Your task to perform on an android device: Open Wikipedia Image 0: 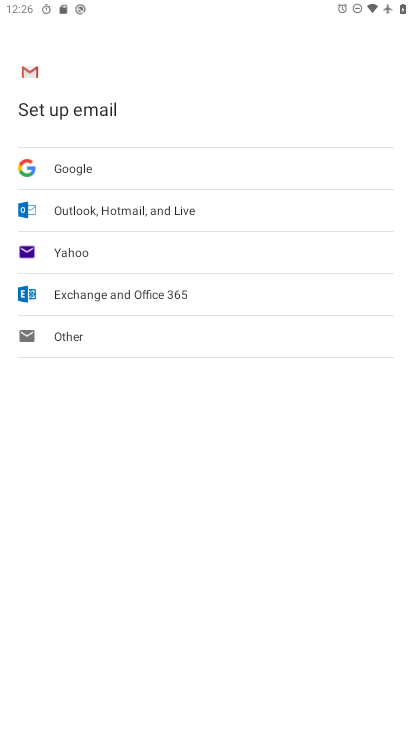
Step 0: press home button
Your task to perform on an android device: Open Wikipedia Image 1: 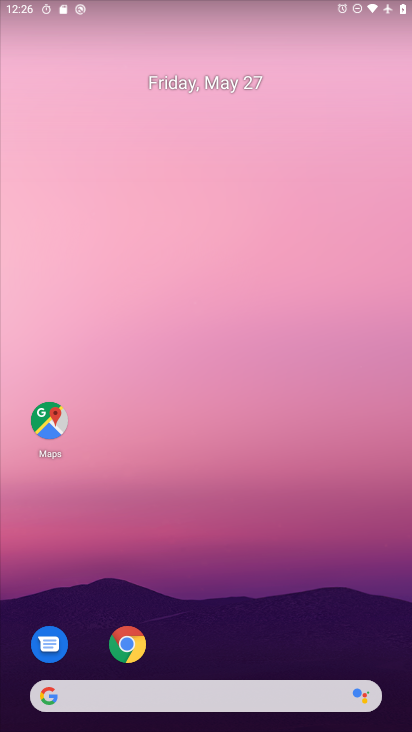
Step 1: drag from (212, 637) to (215, 177)
Your task to perform on an android device: Open Wikipedia Image 2: 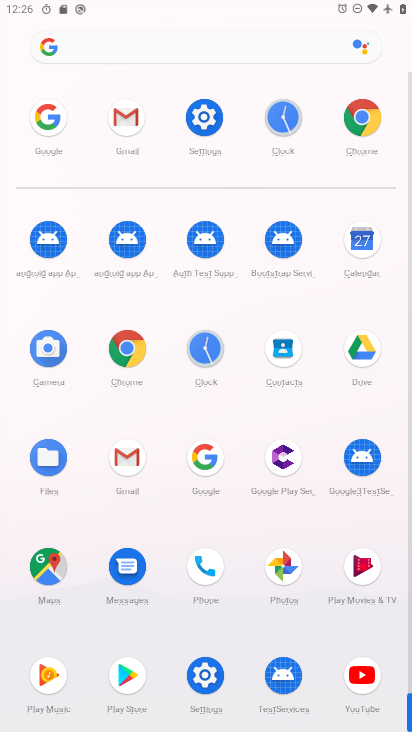
Step 2: click (345, 117)
Your task to perform on an android device: Open Wikipedia Image 3: 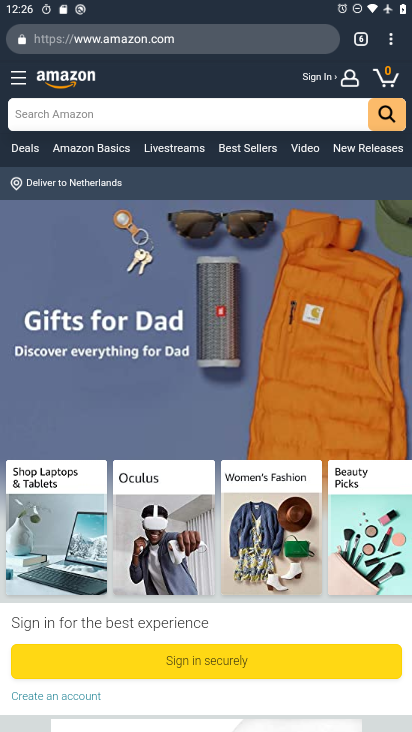
Step 3: click (355, 45)
Your task to perform on an android device: Open Wikipedia Image 4: 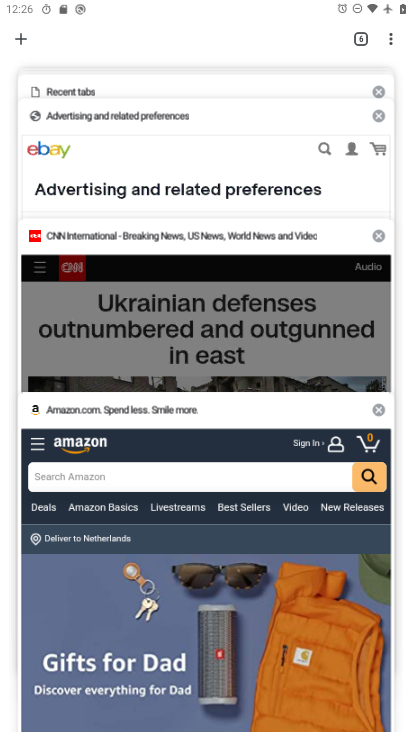
Step 4: click (23, 32)
Your task to perform on an android device: Open Wikipedia Image 5: 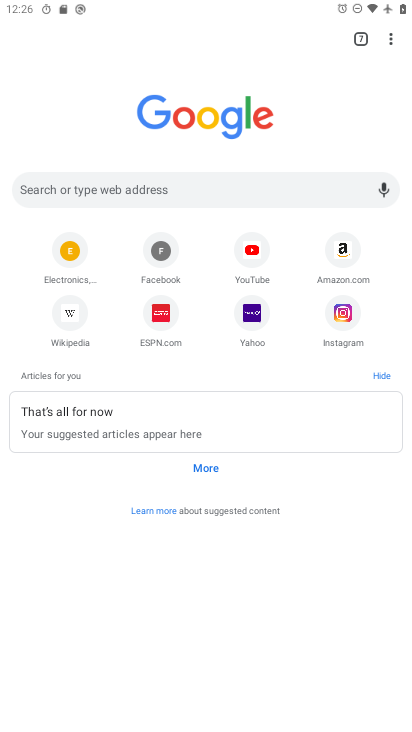
Step 5: click (123, 185)
Your task to perform on an android device: Open Wikipedia Image 6: 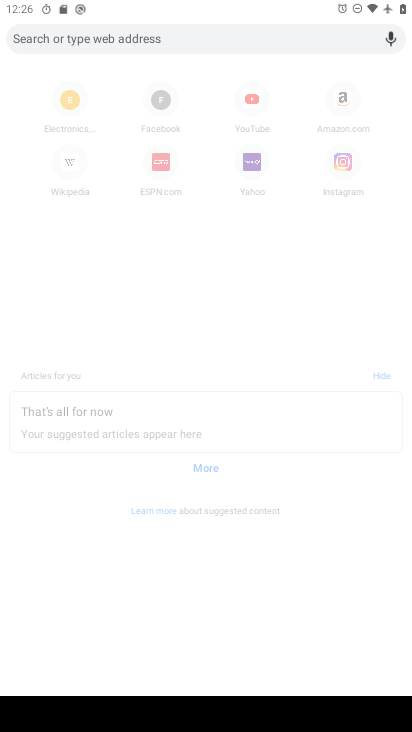
Step 6: type "Wikipedia"
Your task to perform on an android device: Open Wikipedia Image 7: 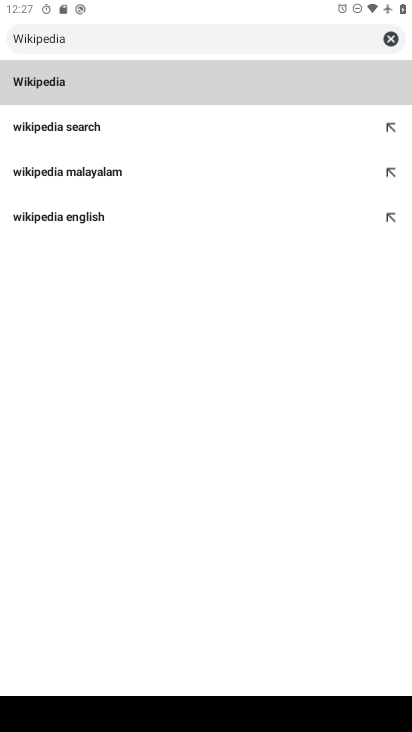
Step 7: click (85, 80)
Your task to perform on an android device: Open Wikipedia Image 8: 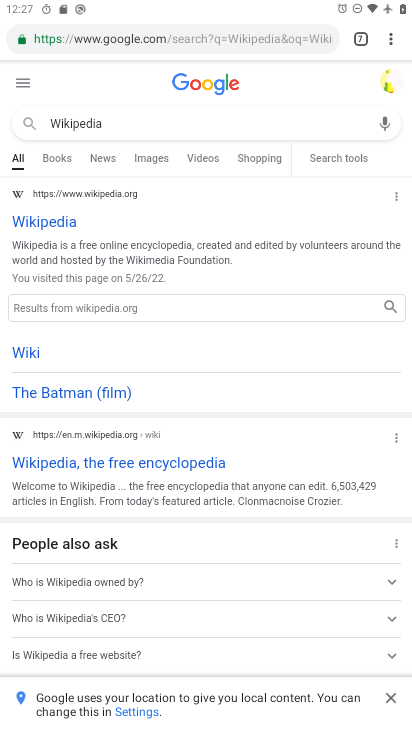
Step 8: click (54, 219)
Your task to perform on an android device: Open Wikipedia Image 9: 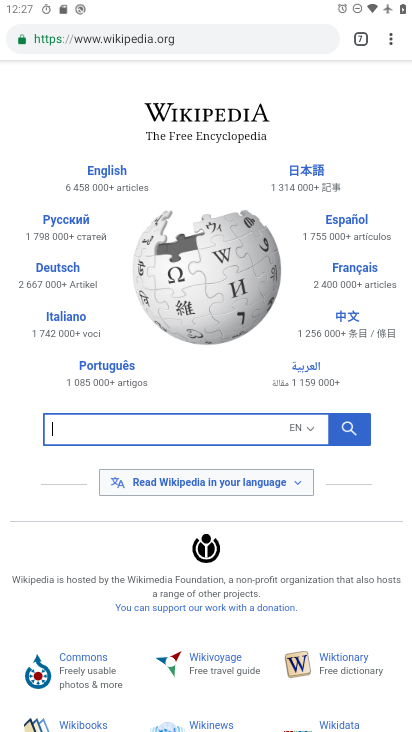
Step 9: task complete